Your task to perform on an android device: Show the shopping cart on bestbuy. Add "razer huntsman" to the cart on bestbuy Image 0: 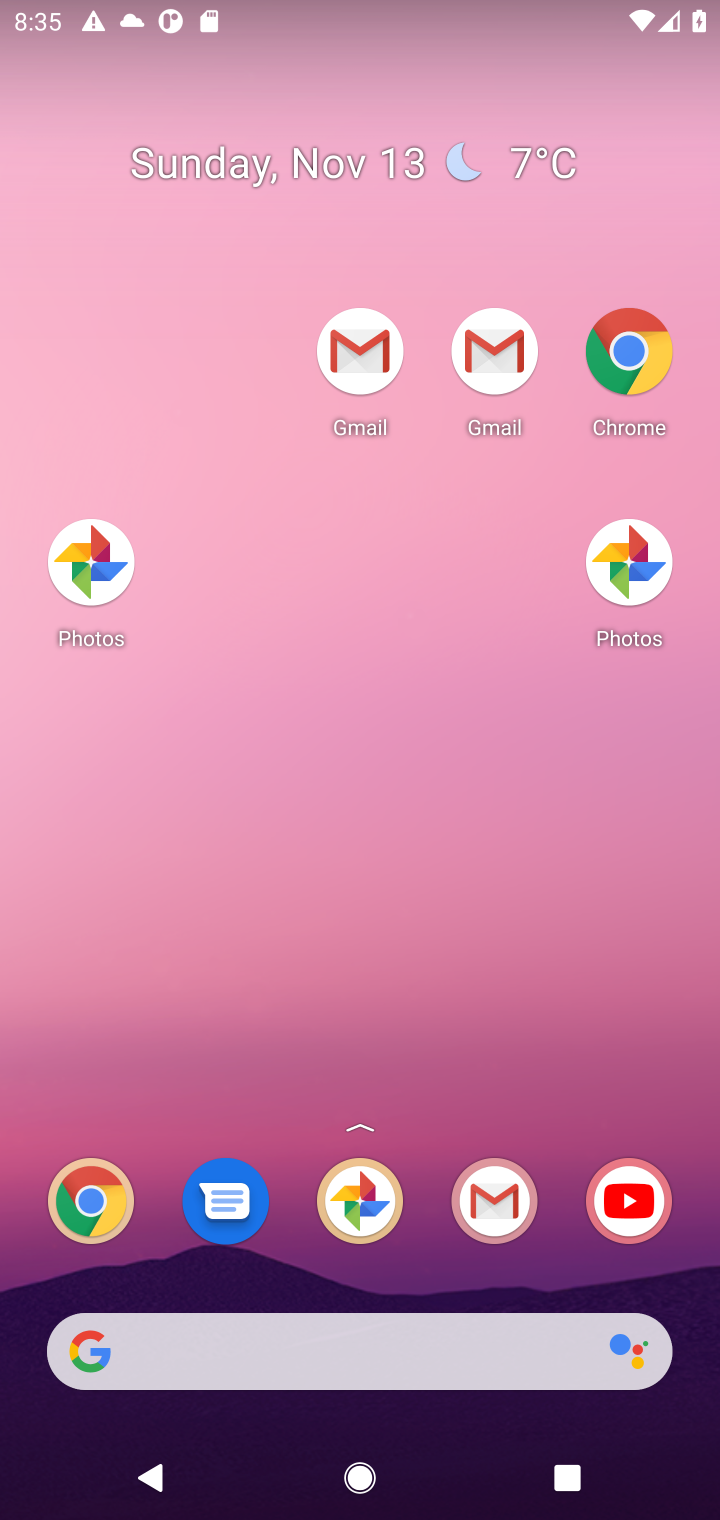
Step 0: drag from (420, 1292) to (394, 318)
Your task to perform on an android device: Show the shopping cart on bestbuy. Add "razer huntsman" to the cart on bestbuy Image 1: 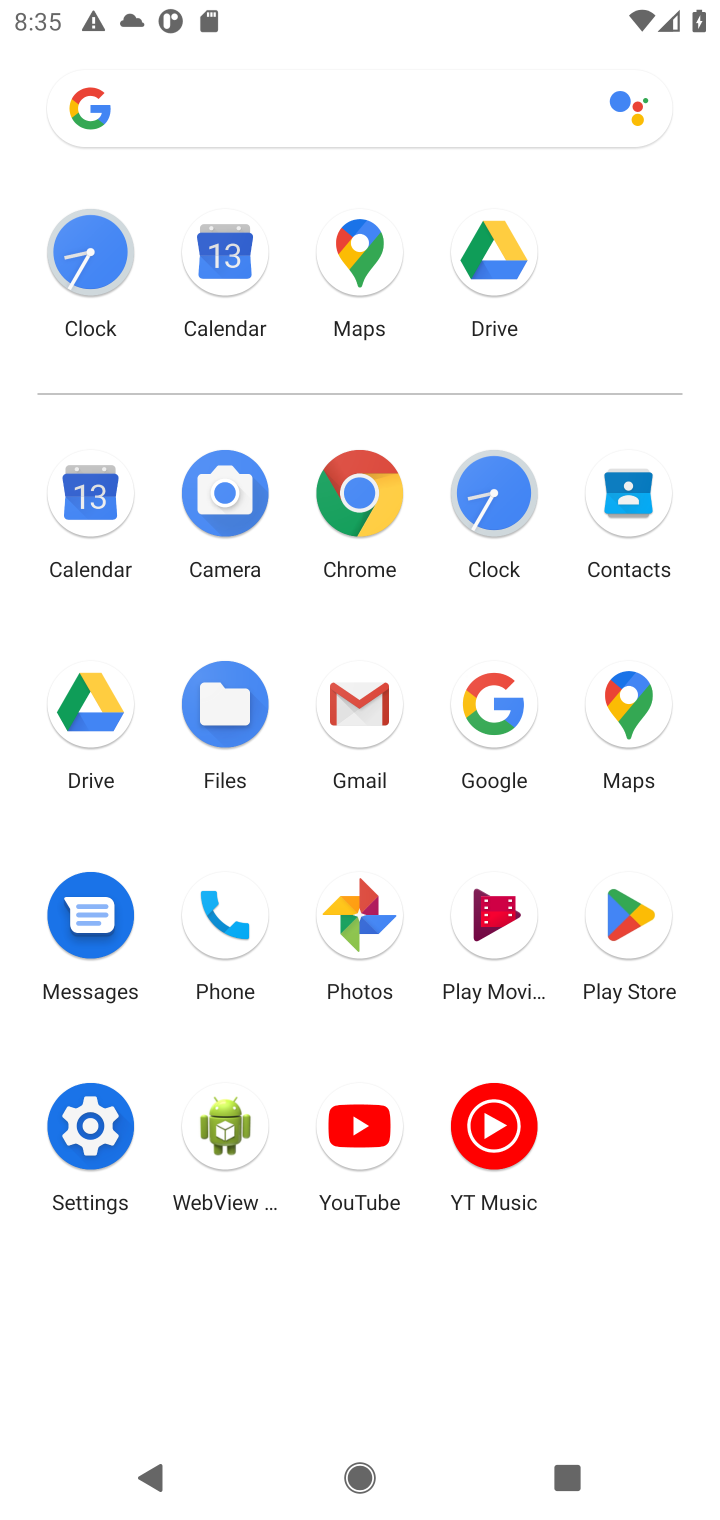
Step 1: click (371, 490)
Your task to perform on an android device: Show the shopping cart on bestbuy. Add "razer huntsman" to the cart on bestbuy Image 2: 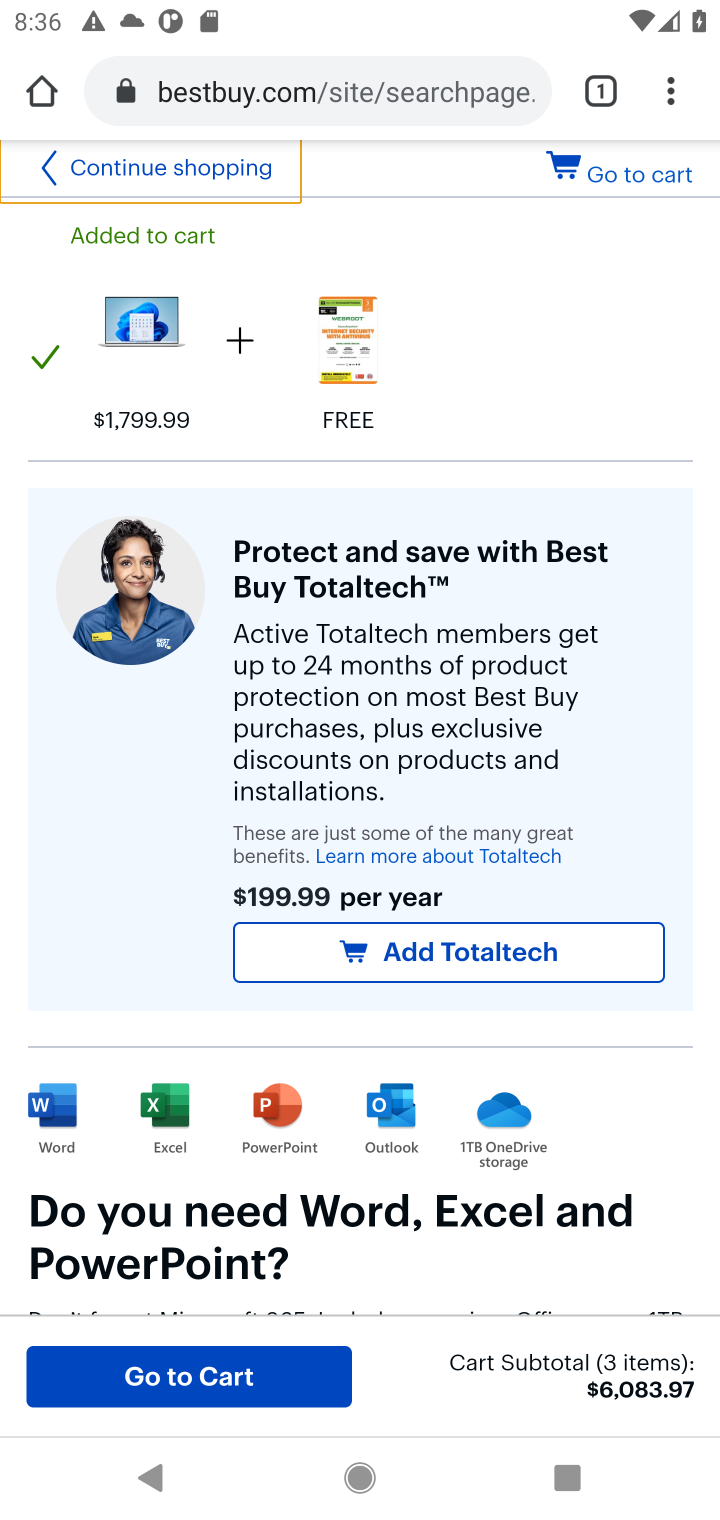
Step 2: click (360, 97)
Your task to perform on an android device: Show the shopping cart on bestbuy. Add "razer huntsman" to the cart on bestbuy Image 3: 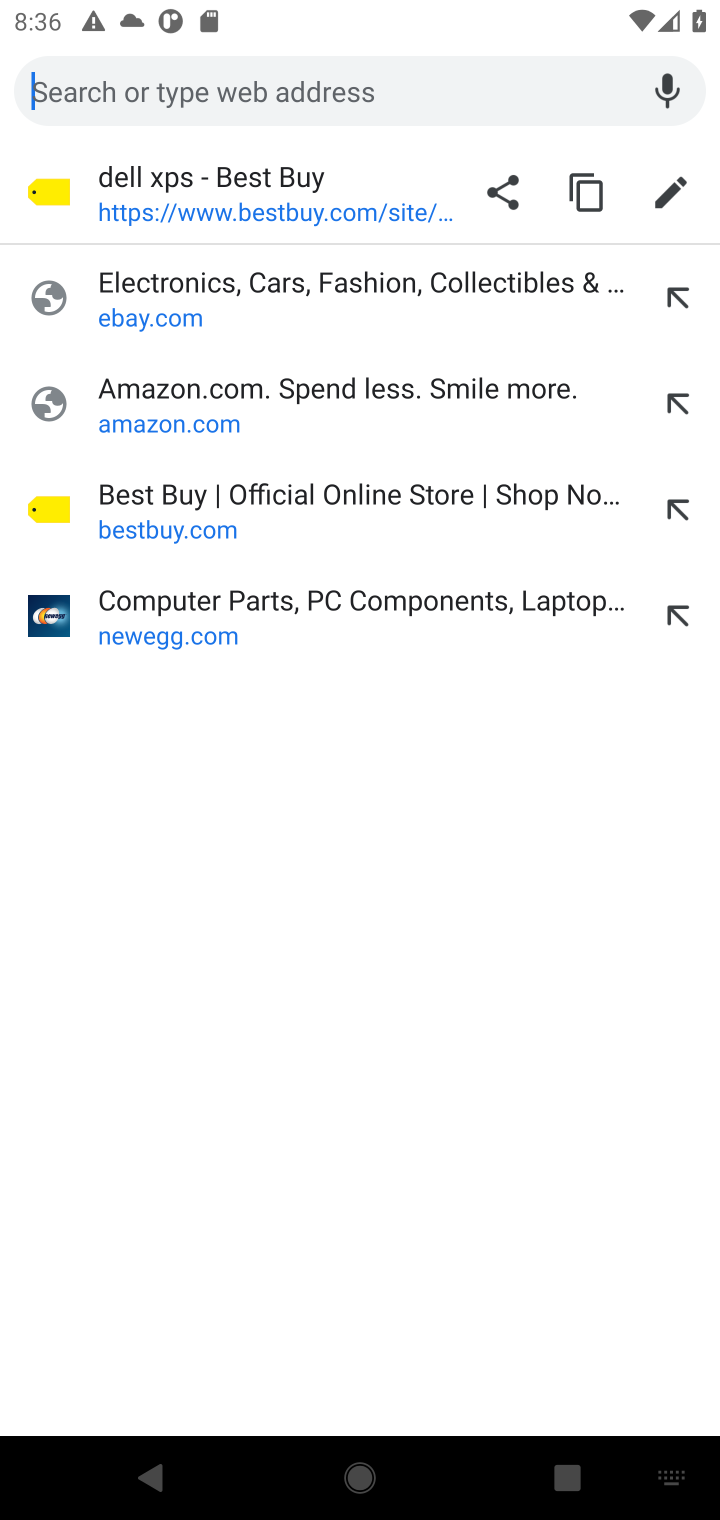
Step 3: type "bestbuy.com"
Your task to perform on an android device: Show the shopping cart on bestbuy. Add "razer huntsman" to the cart on bestbuy Image 4: 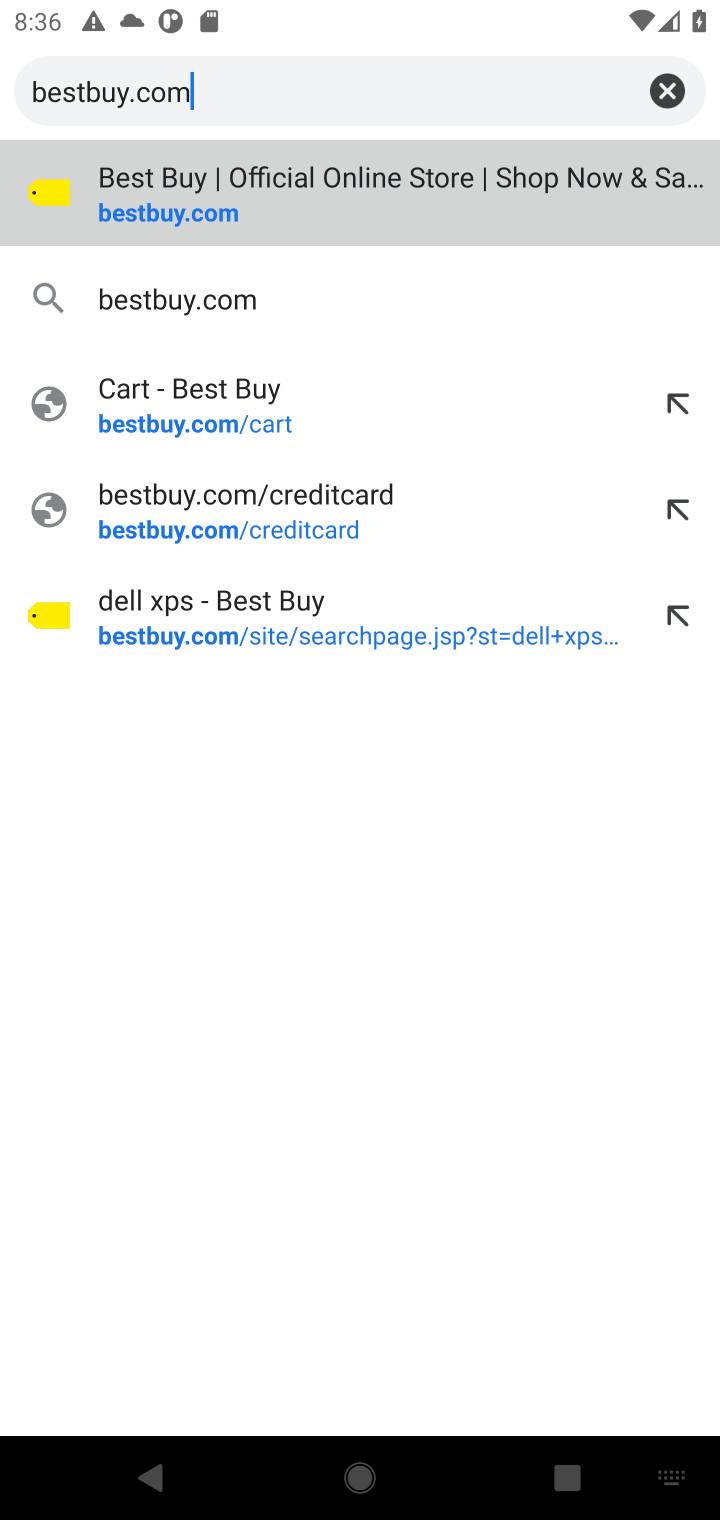
Step 4: press enter
Your task to perform on an android device: Show the shopping cart on bestbuy. Add "razer huntsman" to the cart on bestbuy Image 5: 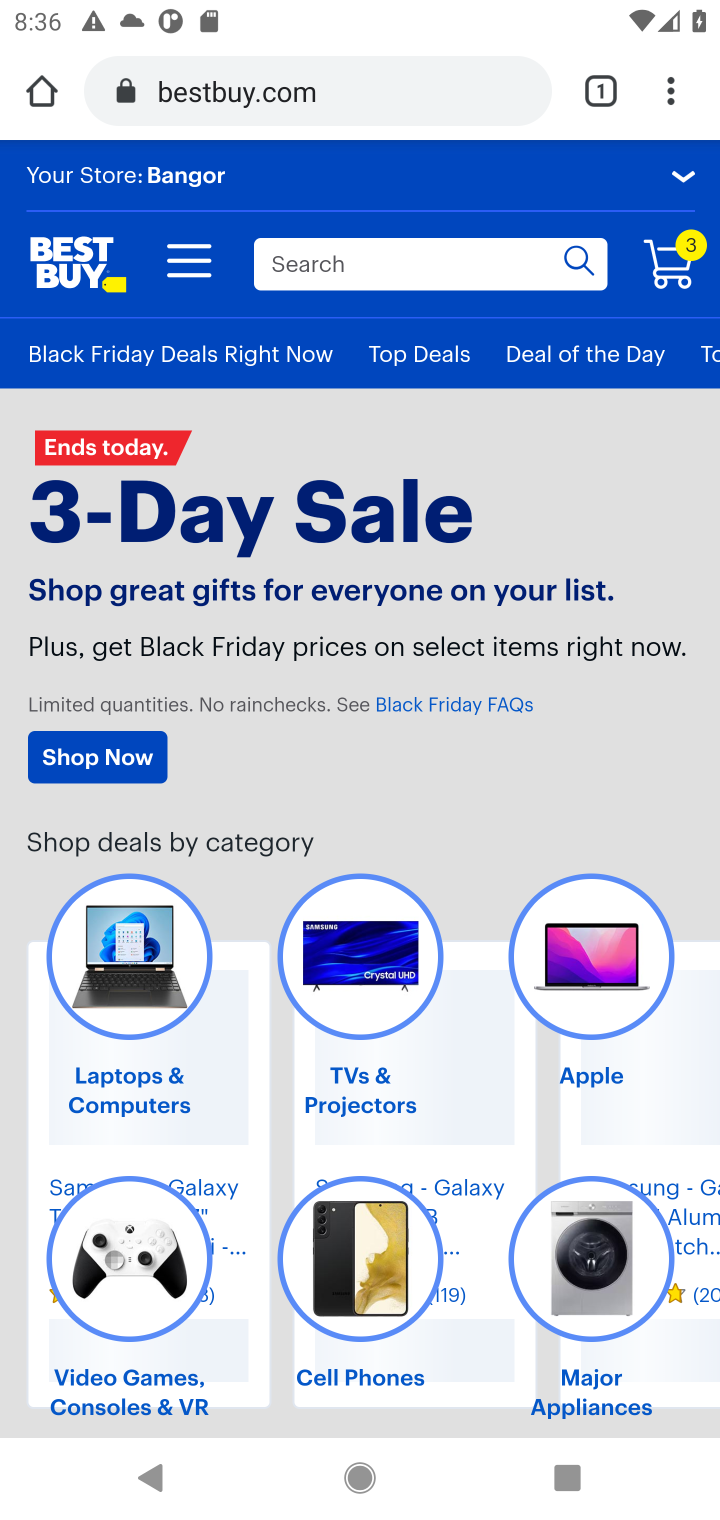
Step 5: click (670, 266)
Your task to perform on an android device: Show the shopping cart on bestbuy. Add "razer huntsman" to the cart on bestbuy Image 6: 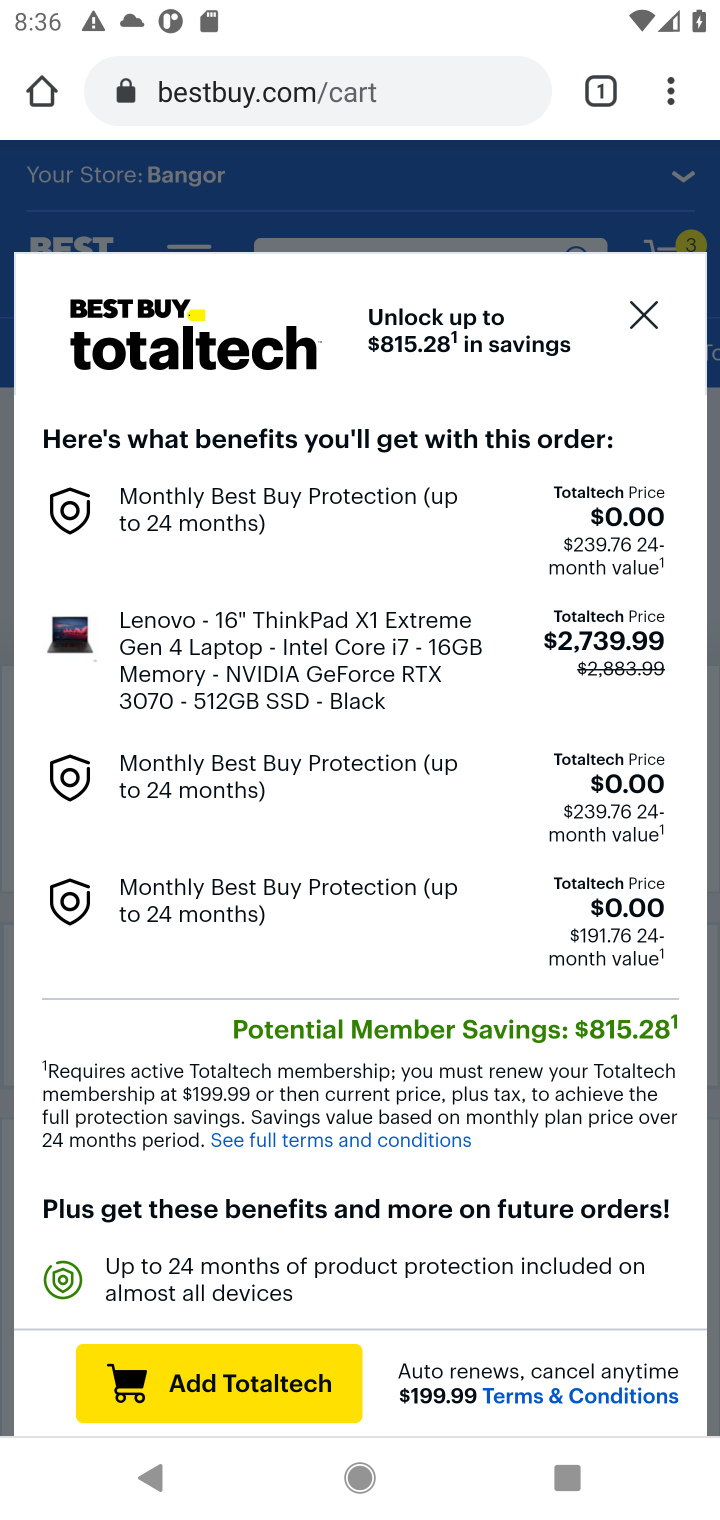
Step 6: click (661, 327)
Your task to perform on an android device: Show the shopping cart on bestbuy. Add "razer huntsman" to the cart on bestbuy Image 7: 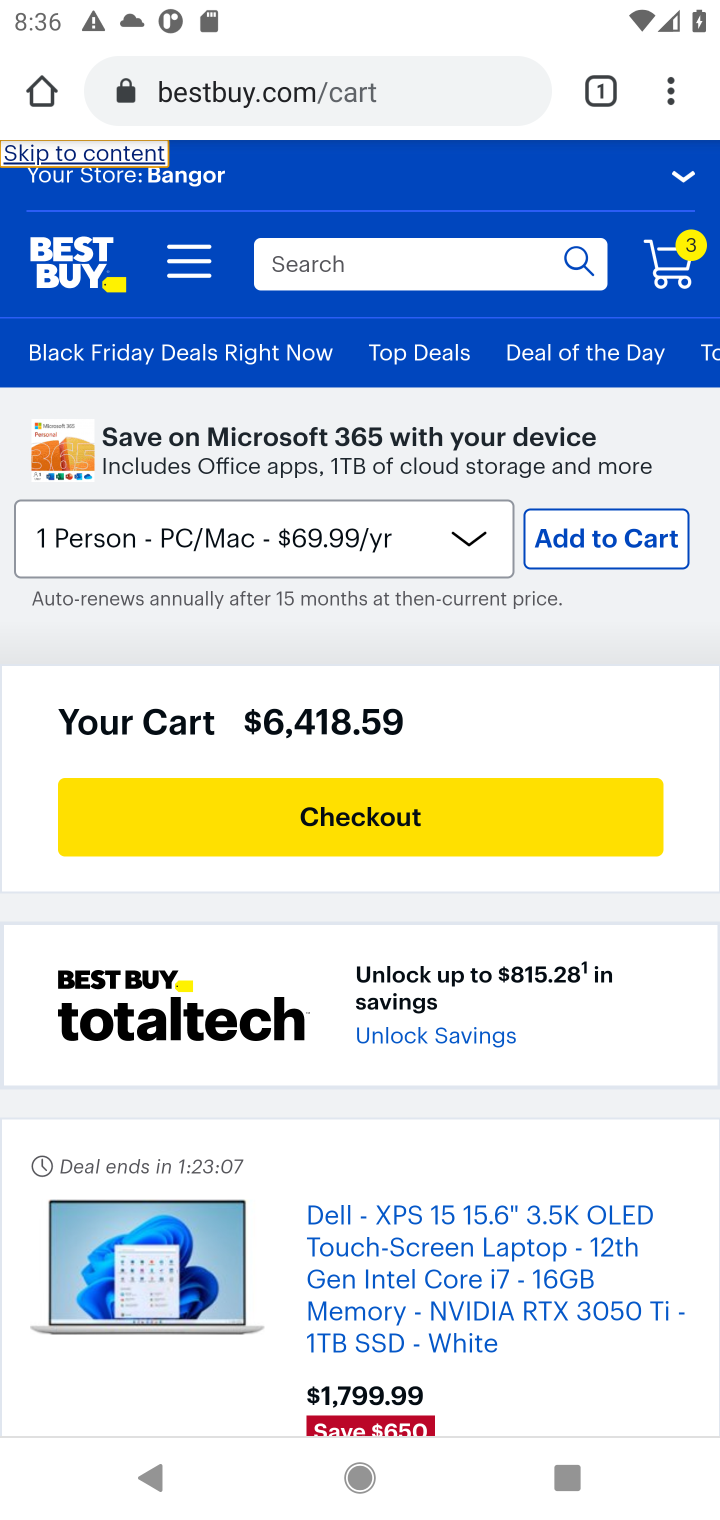
Step 7: click (415, 276)
Your task to perform on an android device: Show the shopping cart on bestbuy. Add "razer huntsman" to the cart on bestbuy Image 8: 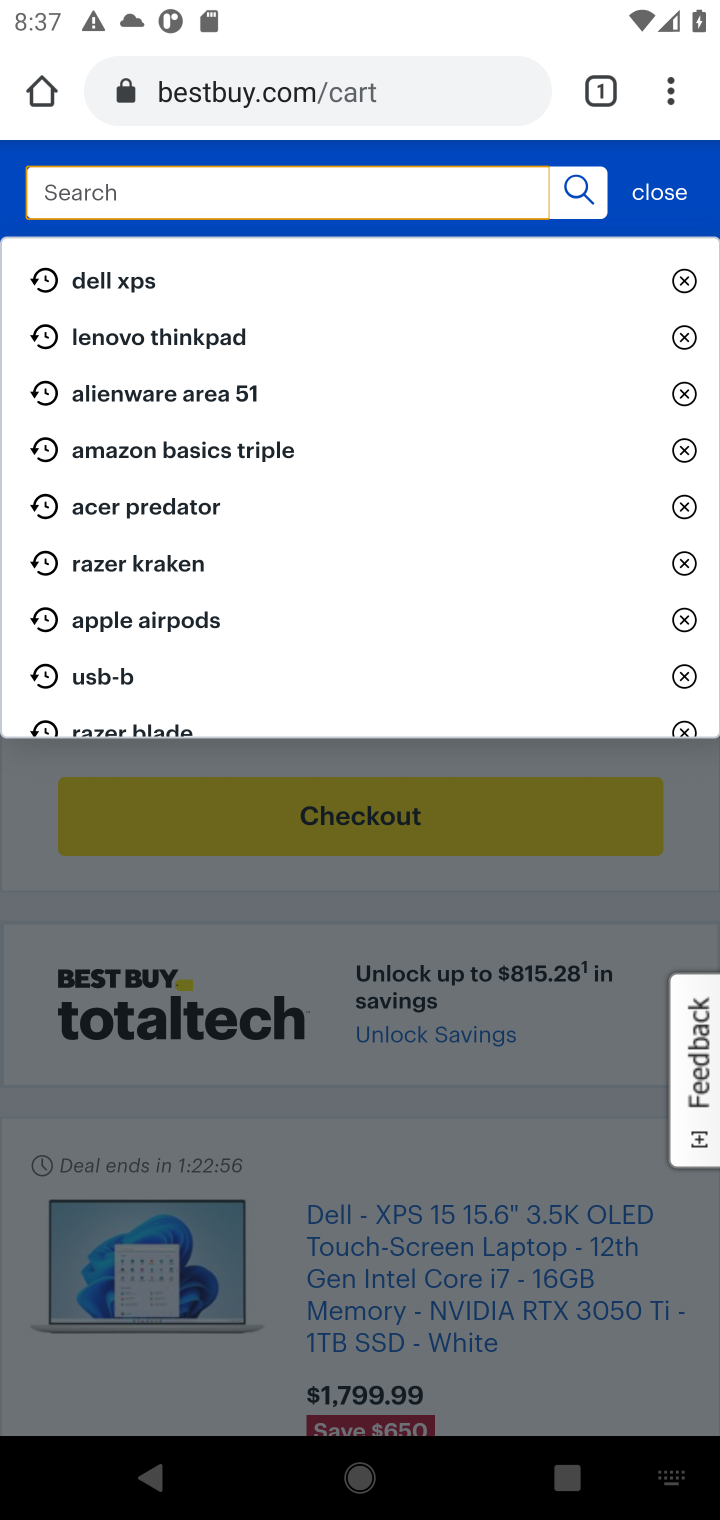
Step 8: type "razer huntsman"
Your task to perform on an android device: Show the shopping cart on bestbuy. Add "razer huntsman" to the cart on bestbuy Image 9: 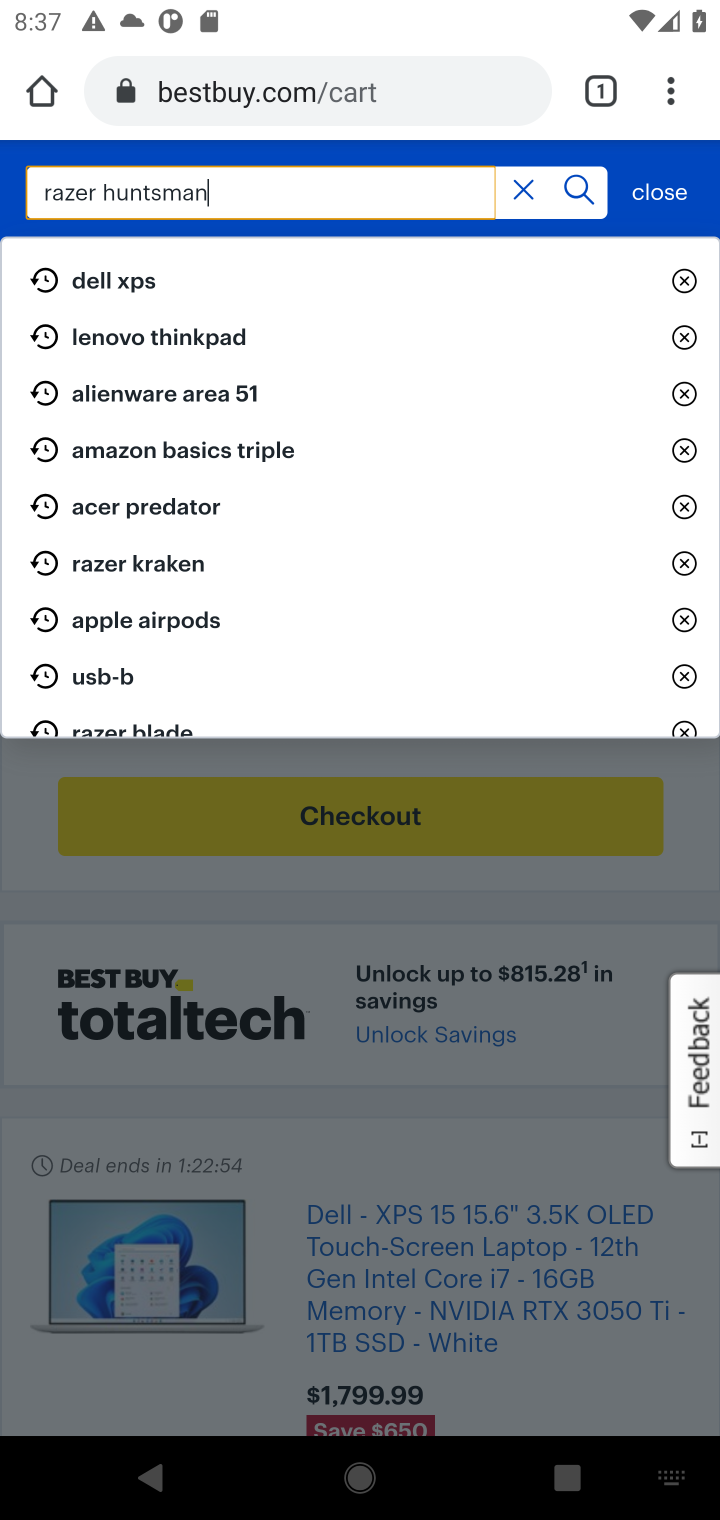
Step 9: press enter
Your task to perform on an android device: Show the shopping cart on bestbuy. Add "razer huntsman" to the cart on bestbuy Image 10: 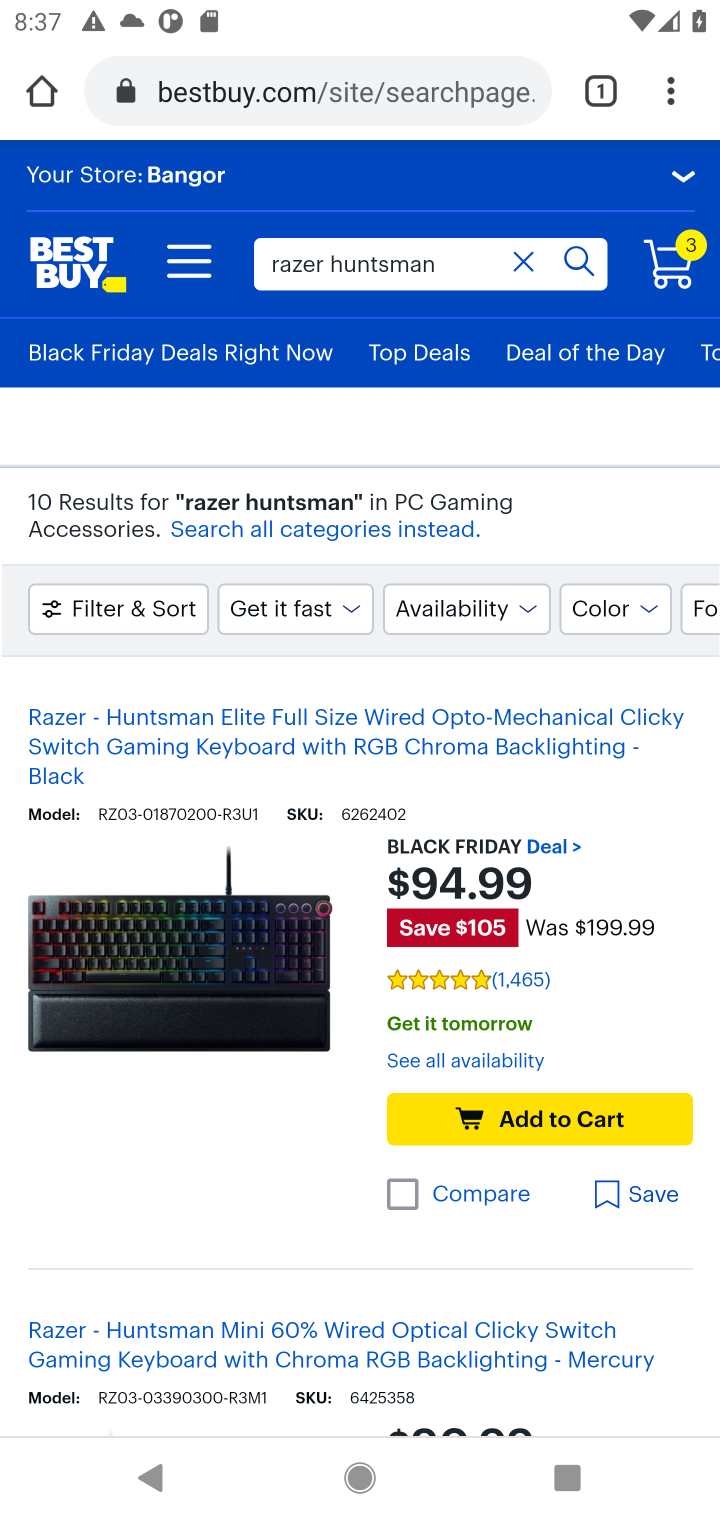
Step 10: click (597, 1110)
Your task to perform on an android device: Show the shopping cart on bestbuy. Add "razer huntsman" to the cart on bestbuy Image 11: 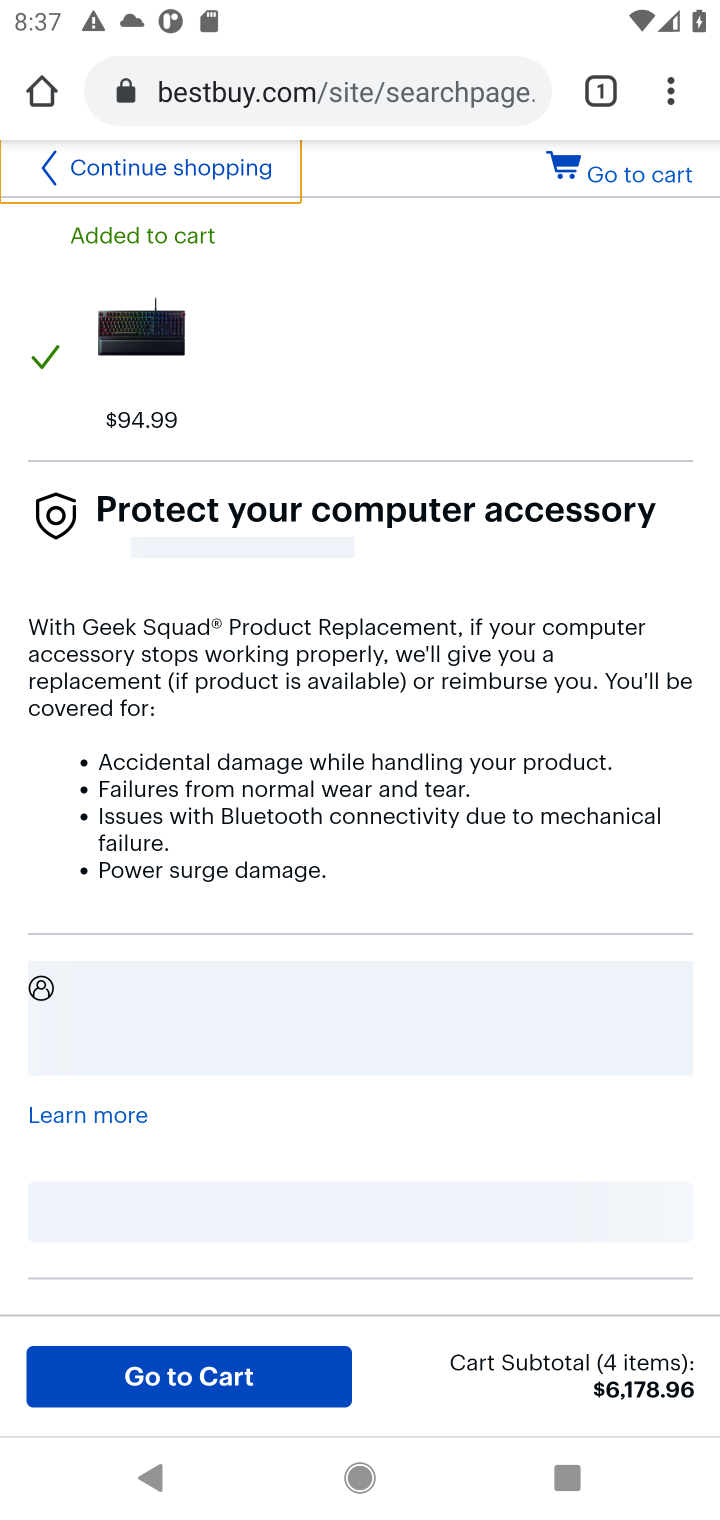
Step 11: task complete